Your task to perform on an android device: turn off picture-in-picture Image 0: 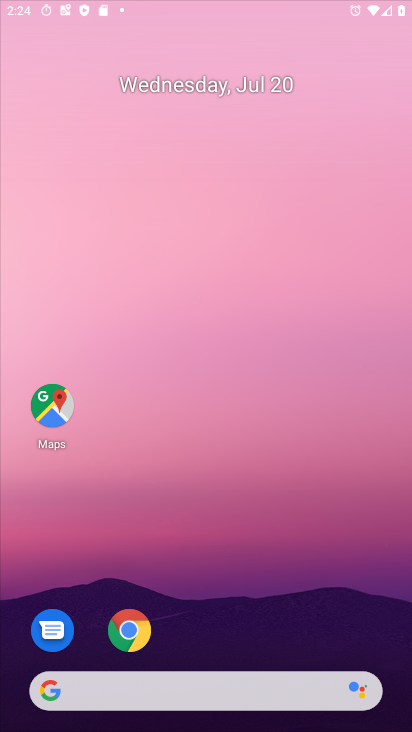
Step 0: press home button
Your task to perform on an android device: turn off picture-in-picture Image 1: 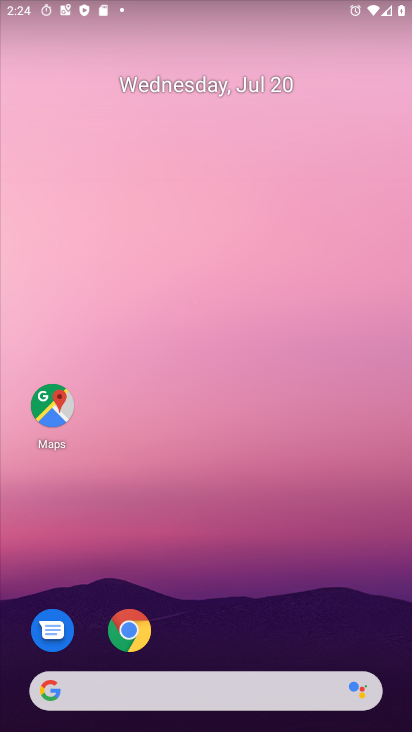
Step 1: click (137, 627)
Your task to perform on an android device: turn off picture-in-picture Image 2: 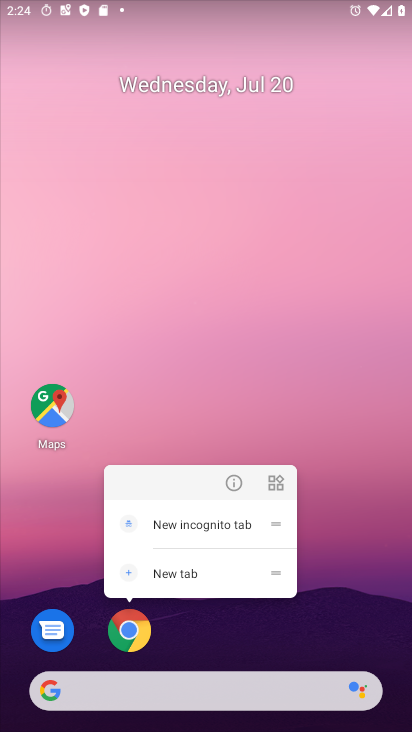
Step 2: click (237, 472)
Your task to perform on an android device: turn off picture-in-picture Image 3: 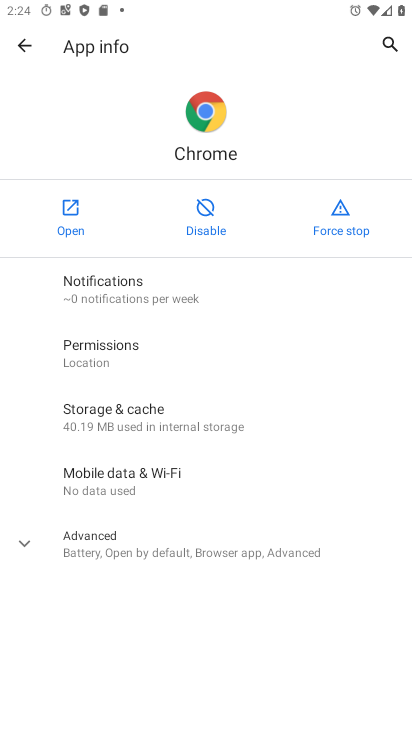
Step 3: click (125, 548)
Your task to perform on an android device: turn off picture-in-picture Image 4: 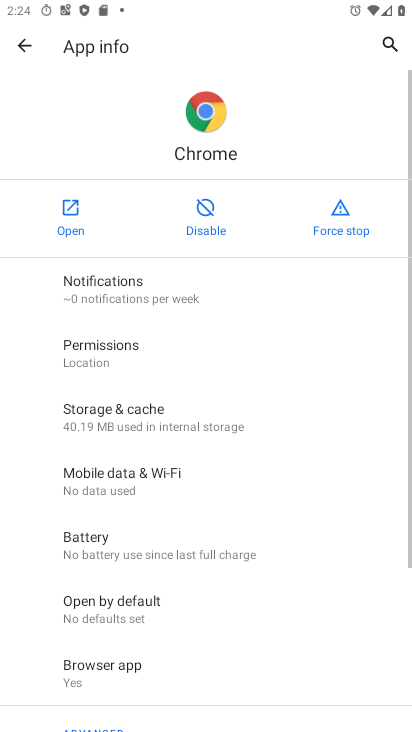
Step 4: drag from (201, 623) to (309, 185)
Your task to perform on an android device: turn off picture-in-picture Image 5: 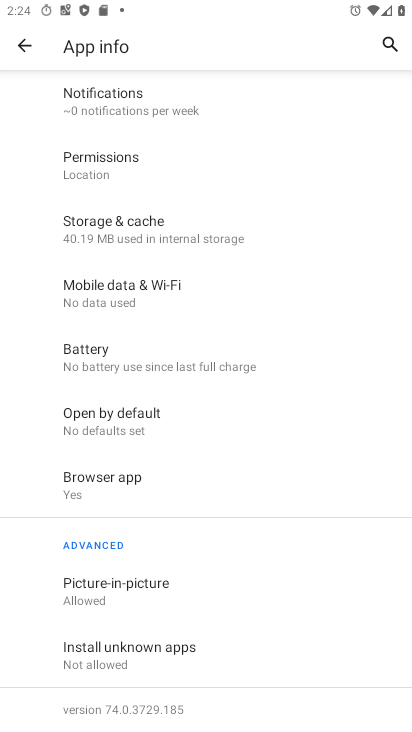
Step 5: click (124, 589)
Your task to perform on an android device: turn off picture-in-picture Image 6: 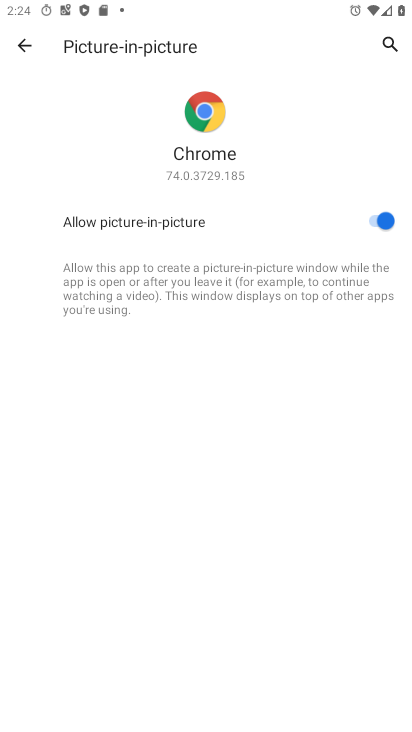
Step 6: click (372, 221)
Your task to perform on an android device: turn off picture-in-picture Image 7: 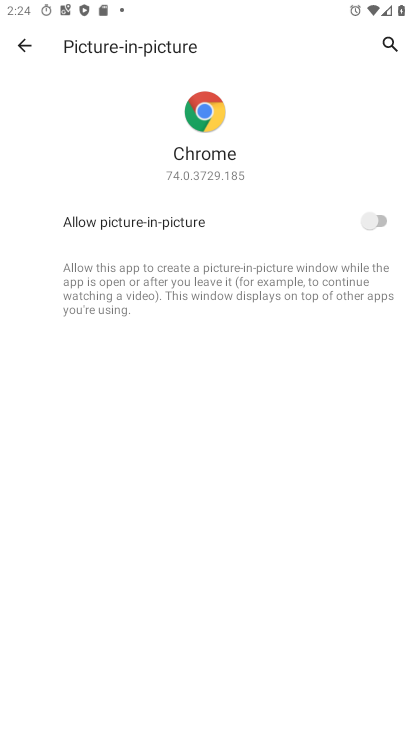
Step 7: task complete